Your task to perform on an android device: toggle sleep mode Image 0: 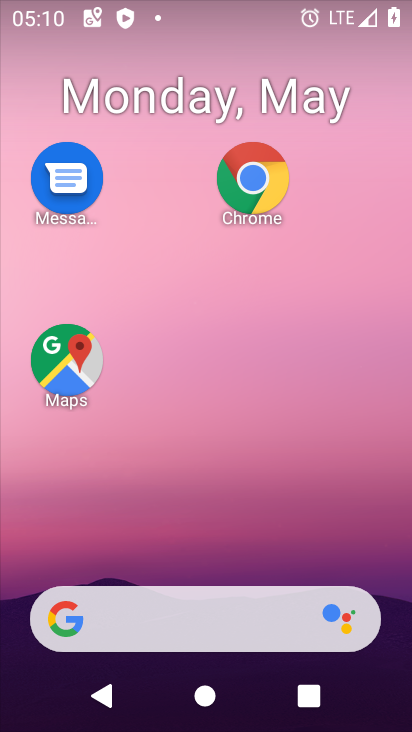
Step 0: drag from (205, 556) to (65, 2)
Your task to perform on an android device: toggle sleep mode Image 1: 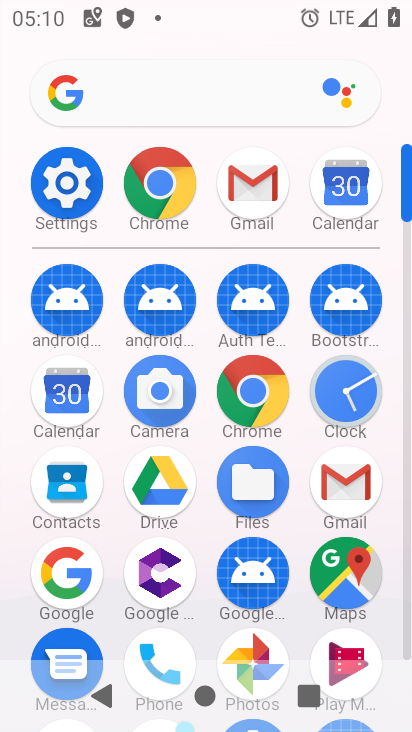
Step 1: click (68, 178)
Your task to perform on an android device: toggle sleep mode Image 2: 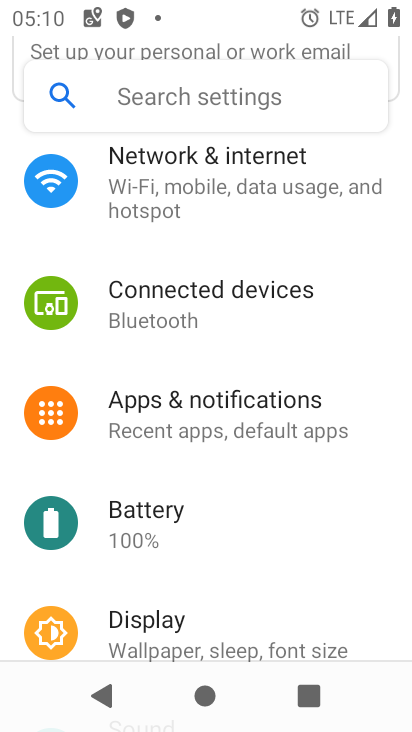
Step 2: task complete